Your task to perform on an android device: turn off priority inbox in the gmail app Image 0: 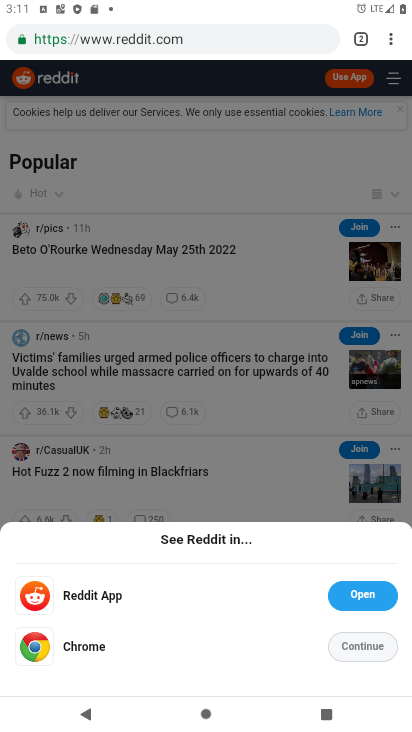
Step 0: press home button
Your task to perform on an android device: turn off priority inbox in the gmail app Image 1: 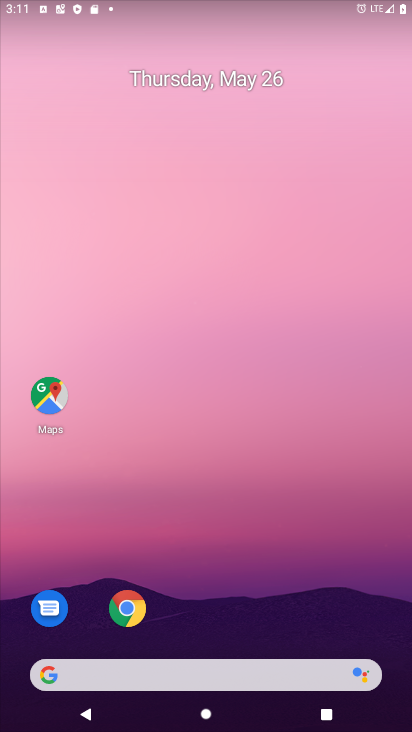
Step 1: drag from (350, 611) to (340, 40)
Your task to perform on an android device: turn off priority inbox in the gmail app Image 2: 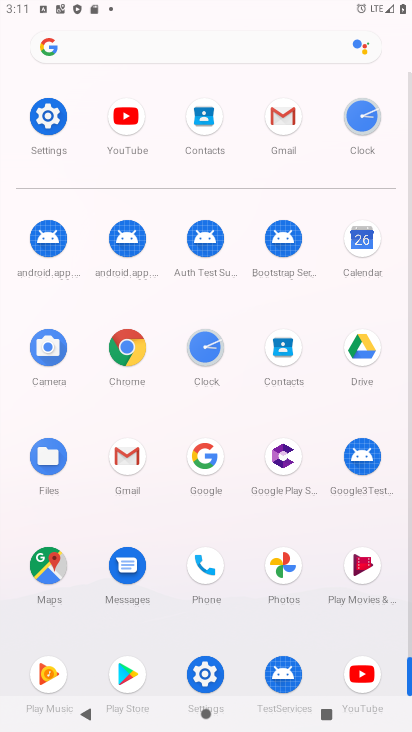
Step 2: click (124, 457)
Your task to perform on an android device: turn off priority inbox in the gmail app Image 3: 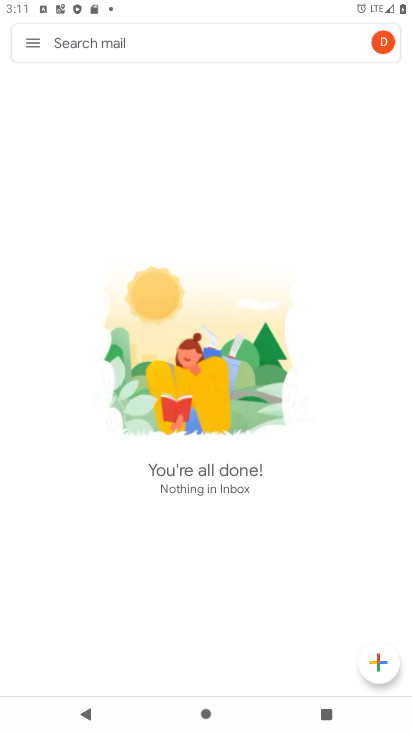
Step 3: click (34, 45)
Your task to perform on an android device: turn off priority inbox in the gmail app Image 4: 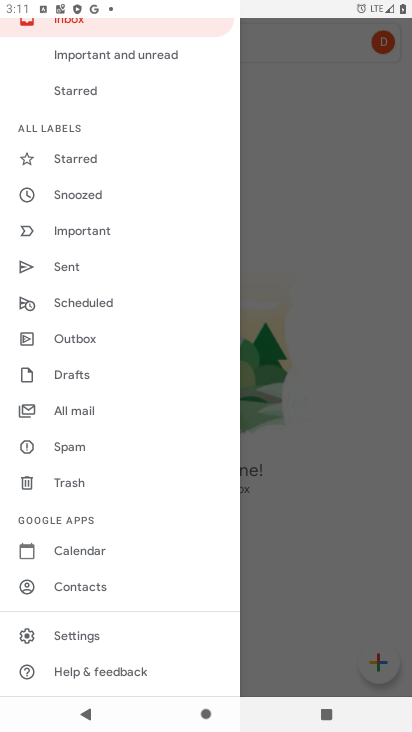
Step 4: click (94, 625)
Your task to perform on an android device: turn off priority inbox in the gmail app Image 5: 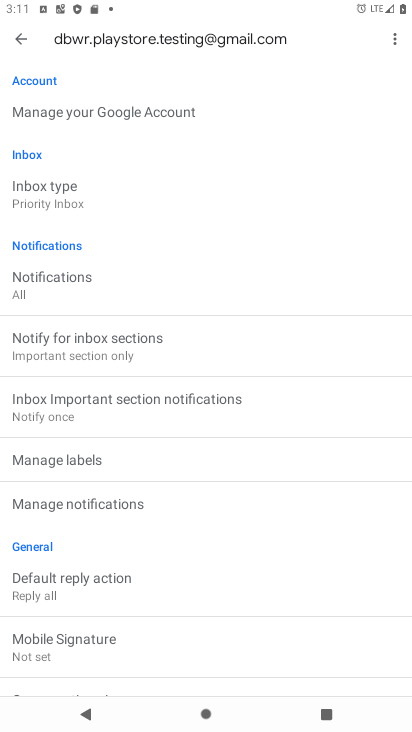
Step 5: click (79, 198)
Your task to perform on an android device: turn off priority inbox in the gmail app Image 6: 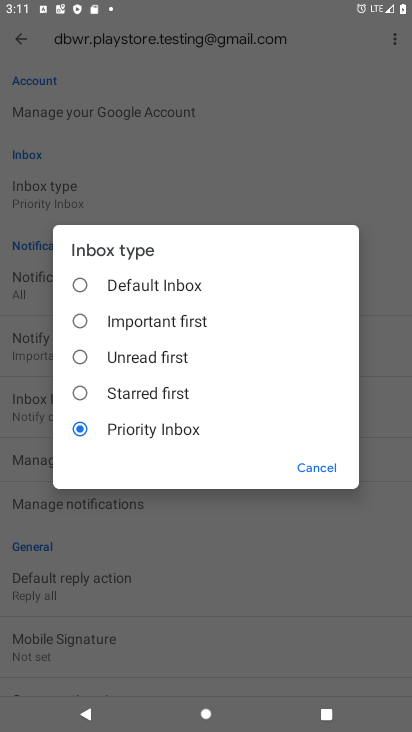
Step 6: click (75, 286)
Your task to perform on an android device: turn off priority inbox in the gmail app Image 7: 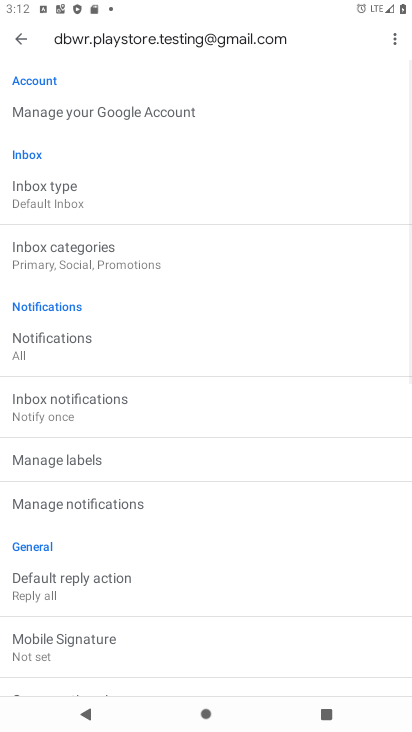
Step 7: task complete